Your task to perform on an android device: Is it going to rain today? Image 0: 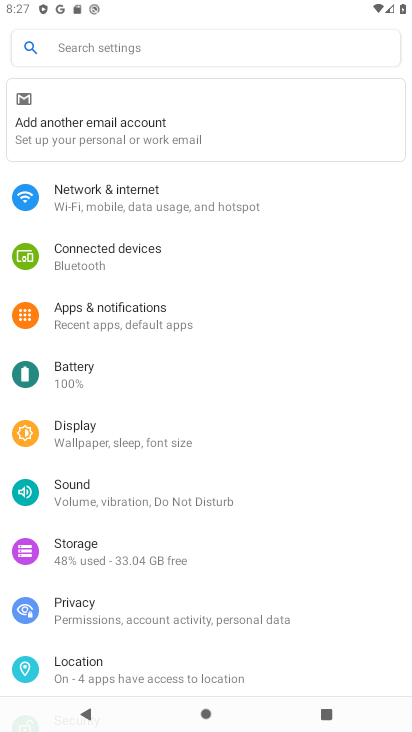
Step 0: press home button
Your task to perform on an android device: Is it going to rain today? Image 1: 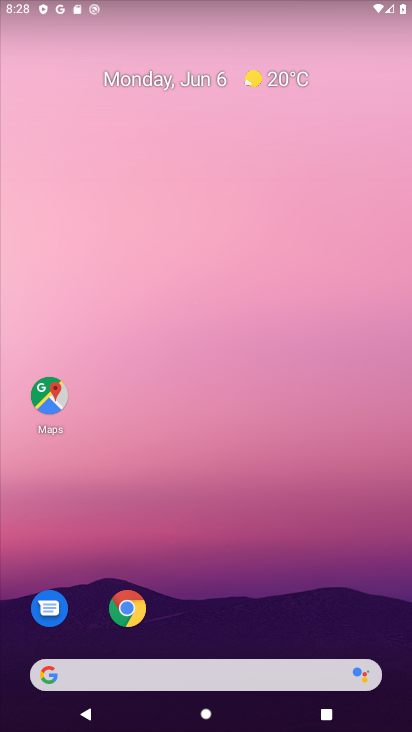
Step 1: click (149, 677)
Your task to perform on an android device: Is it going to rain today? Image 2: 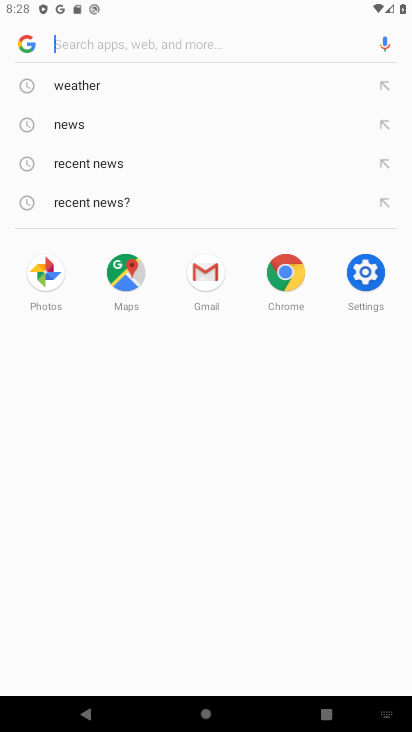
Step 2: click (113, 83)
Your task to perform on an android device: Is it going to rain today? Image 3: 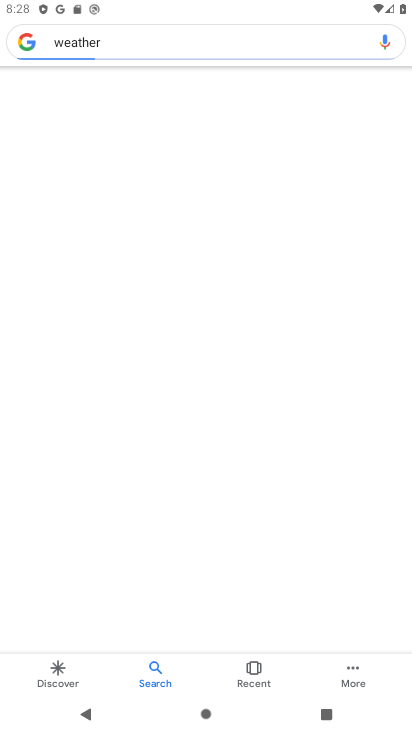
Step 3: task complete